Your task to perform on an android device: remove spam from my inbox in the gmail app Image 0: 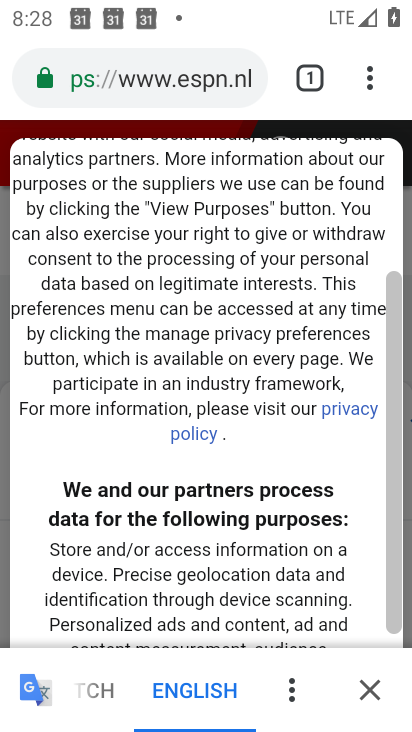
Step 0: press home button
Your task to perform on an android device: remove spam from my inbox in the gmail app Image 1: 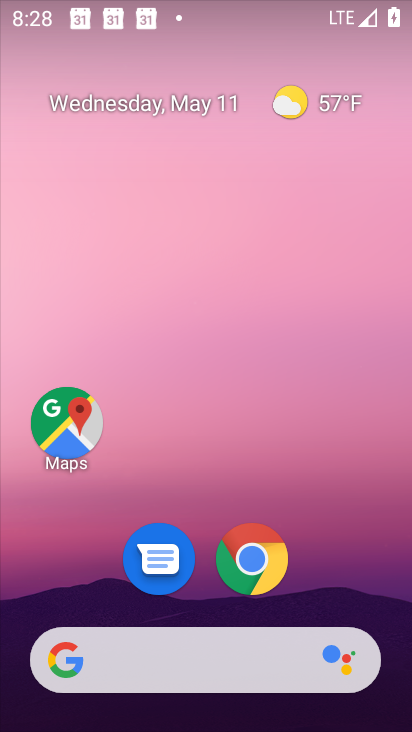
Step 1: drag from (339, 555) to (326, 25)
Your task to perform on an android device: remove spam from my inbox in the gmail app Image 2: 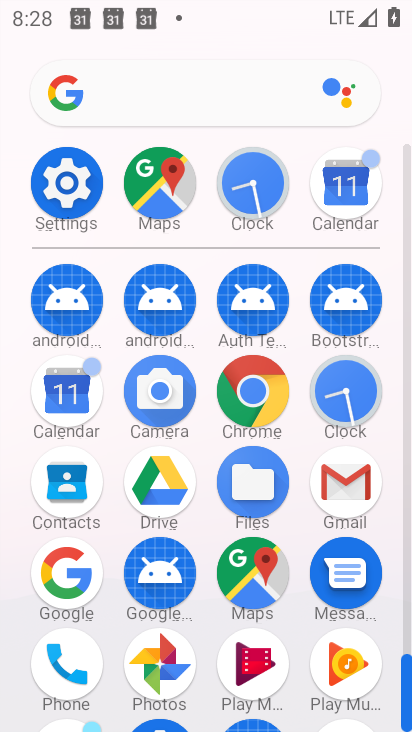
Step 2: click (342, 475)
Your task to perform on an android device: remove spam from my inbox in the gmail app Image 3: 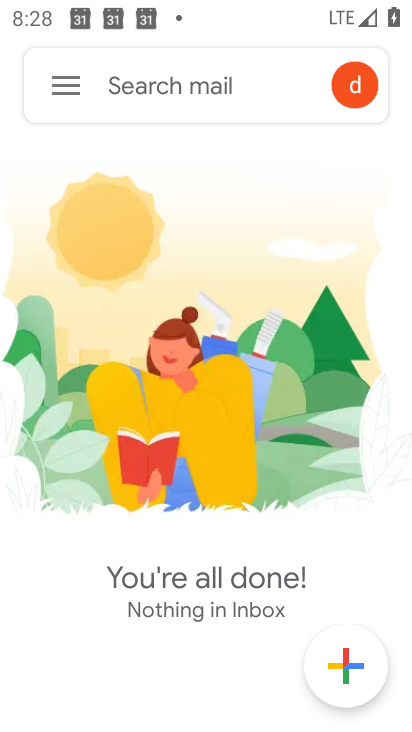
Step 3: click (69, 89)
Your task to perform on an android device: remove spam from my inbox in the gmail app Image 4: 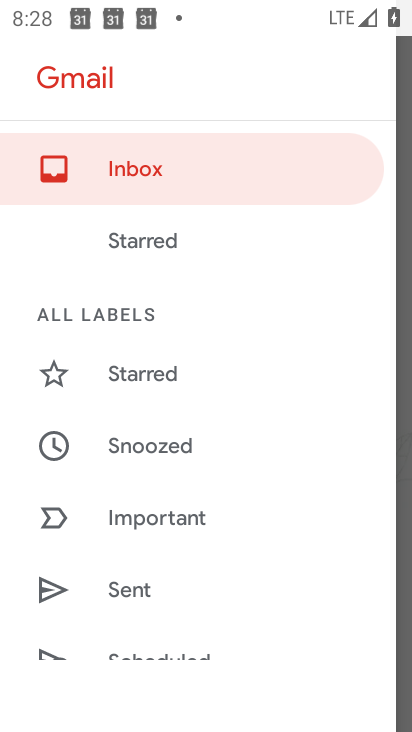
Step 4: task complete